Your task to perform on an android device: Go to Yahoo.com Image 0: 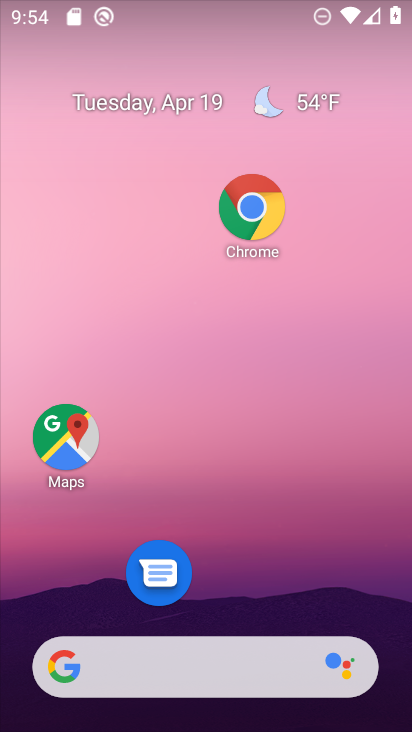
Step 0: click (258, 206)
Your task to perform on an android device: Go to Yahoo.com Image 1: 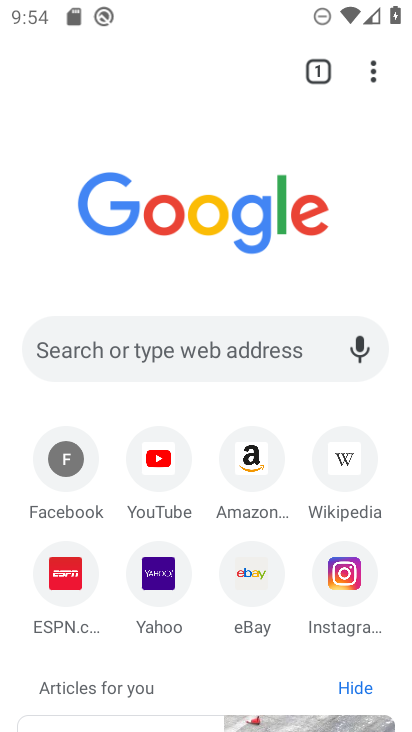
Step 1: click (149, 572)
Your task to perform on an android device: Go to Yahoo.com Image 2: 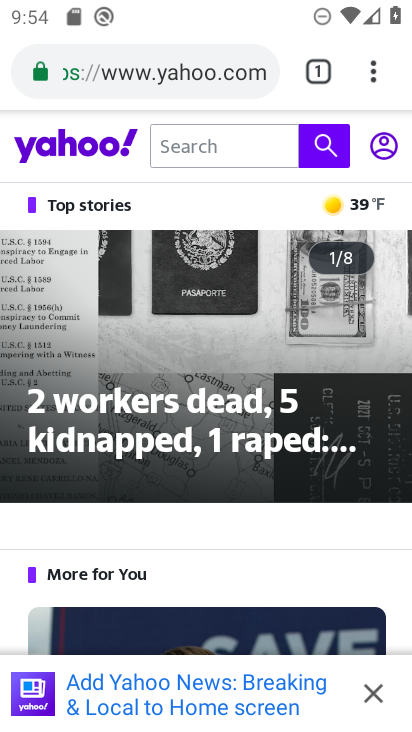
Step 2: task complete